Your task to perform on an android device: Open Youtube and go to "Your channel" Image 0: 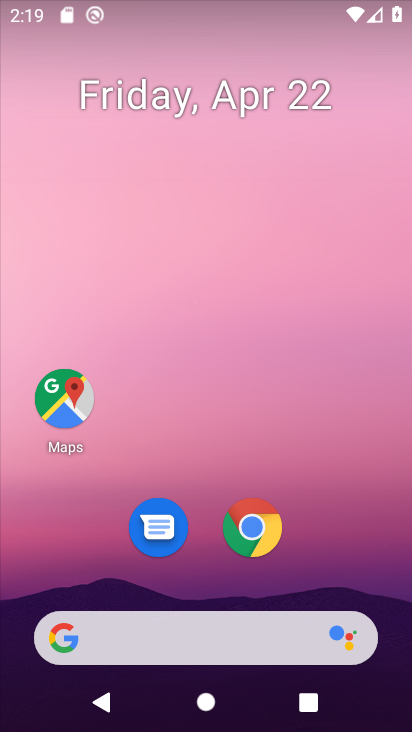
Step 0: drag from (340, 573) to (178, 71)
Your task to perform on an android device: Open Youtube and go to "Your channel" Image 1: 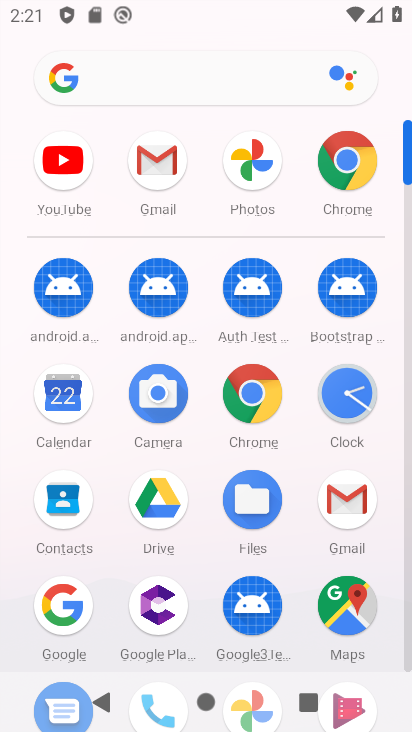
Step 1: click (49, 161)
Your task to perform on an android device: Open Youtube and go to "Your channel" Image 2: 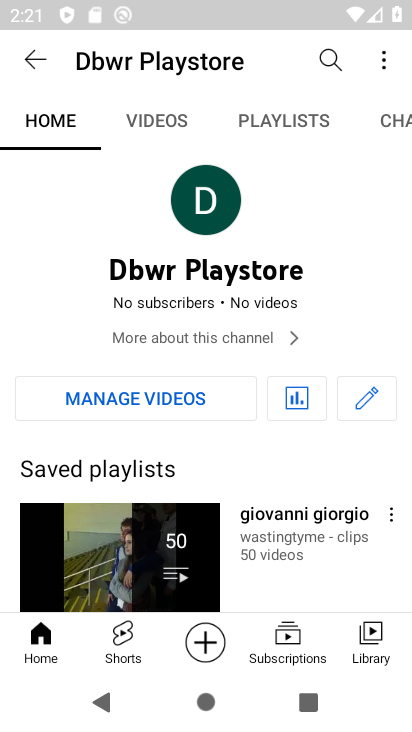
Step 2: click (198, 275)
Your task to perform on an android device: Open Youtube and go to "Your channel" Image 3: 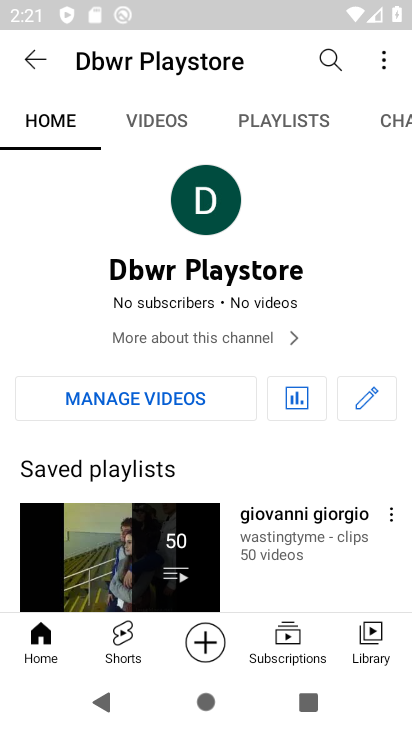
Step 3: click (201, 169)
Your task to perform on an android device: Open Youtube and go to "Your channel" Image 4: 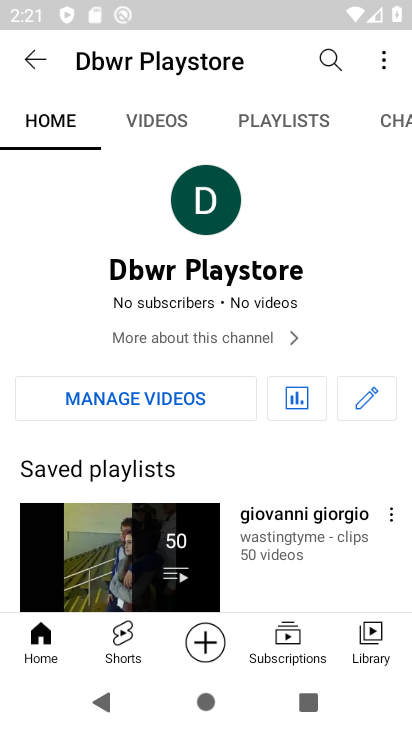
Step 4: task complete